Your task to perform on an android device: set the stopwatch Image 0: 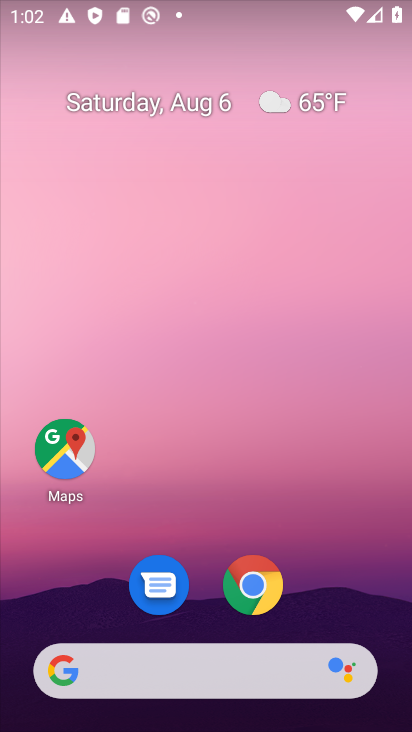
Step 0: drag from (216, 510) to (245, 1)
Your task to perform on an android device: set the stopwatch Image 1: 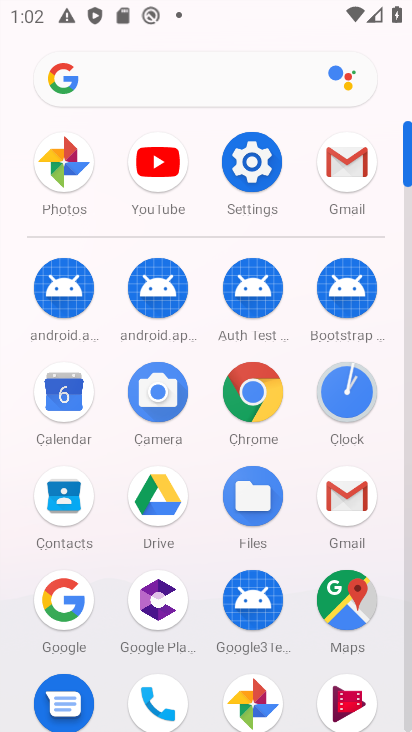
Step 1: click (338, 382)
Your task to perform on an android device: set the stopwatch Image 2: 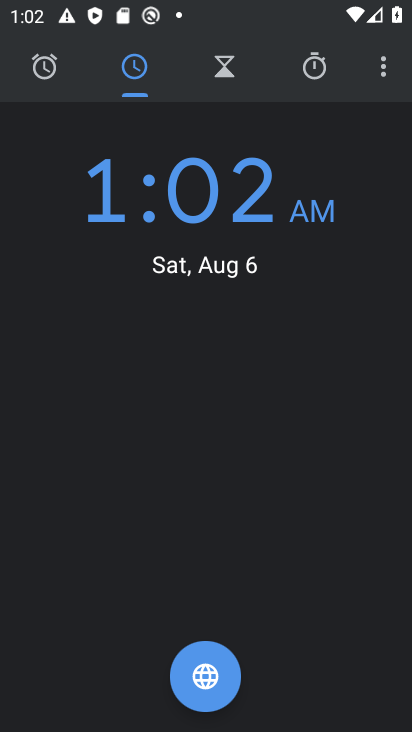
Step 2: click (318, 70)
Your task to perform on an android device: set the stopwatch Image 3: 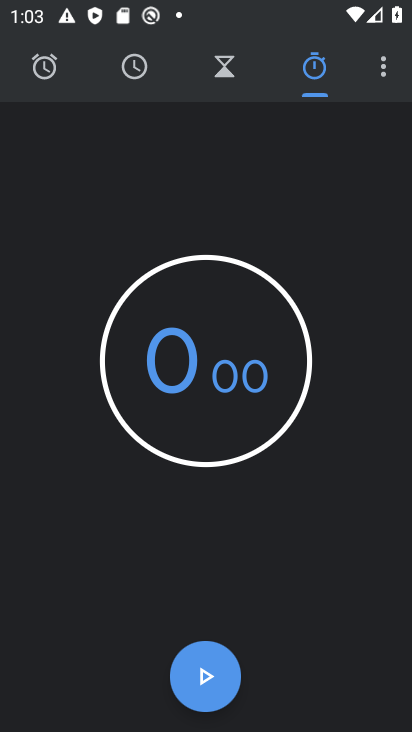
Step 3: task complete